Your task to perform on an android device: Go to location settings Image 0: 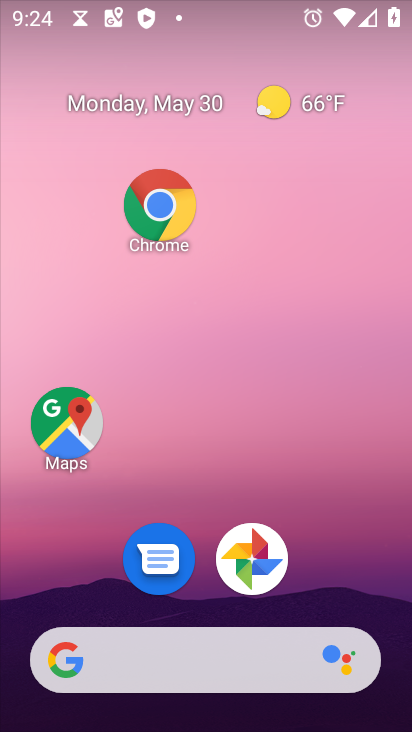
Step 0: drag from (246, 529) to (172, 5)
Your task to perform on an android device: Go to location settings Image 1: 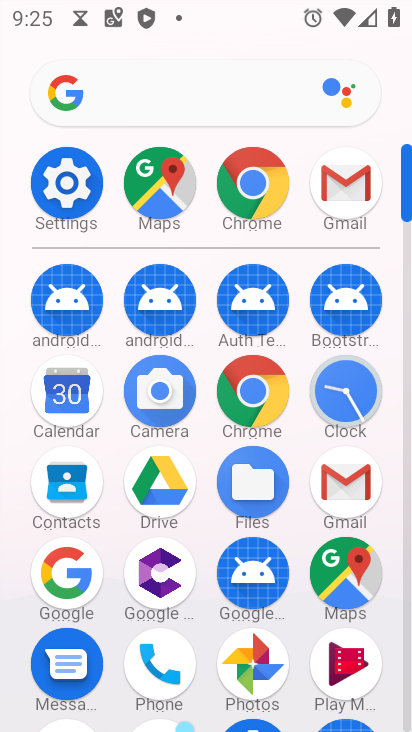
Step 1: drag from (161, 82) to (170, 35)
Your task to perform on an android device: Go to location settings Image 2: 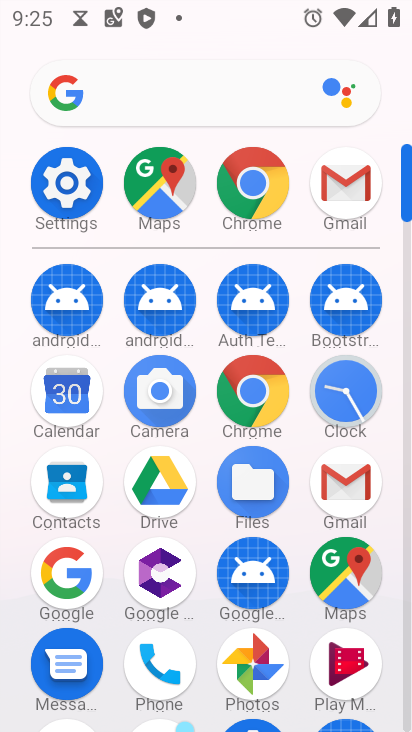
Step 2: drag from (164, 185) to (155, 92)
Your task to perform on an android device: Go to location settings Image 3: 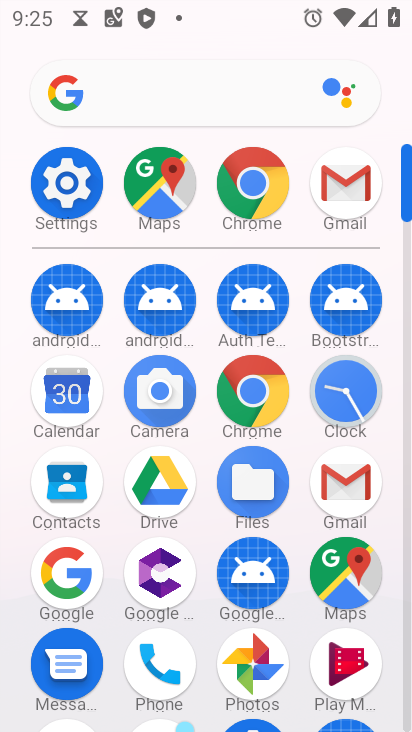
Step 3: drag from (231, 463) to (189, 9)
Your task to perform on an android device: Go to location settings Image 4: 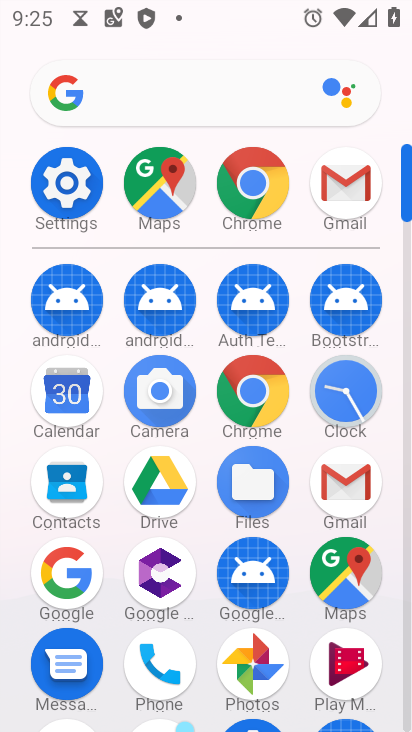
Step 4: click (199, 48)
Your task to perform on an android device: Go to location settings Image 5: 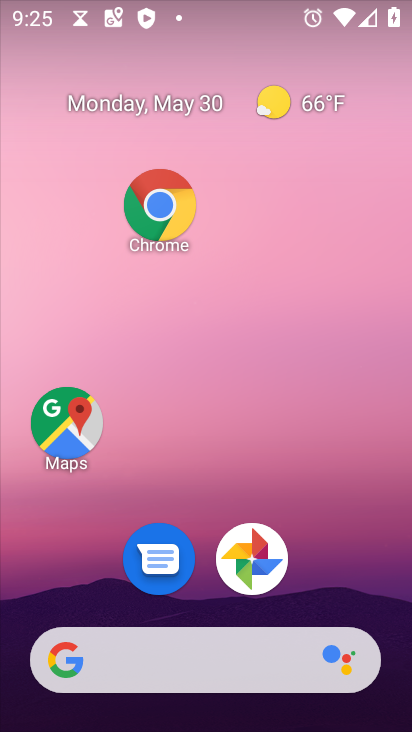
Step 5: click (246, 194)
Your task to perform on an android device: Go to location settings Image 6: 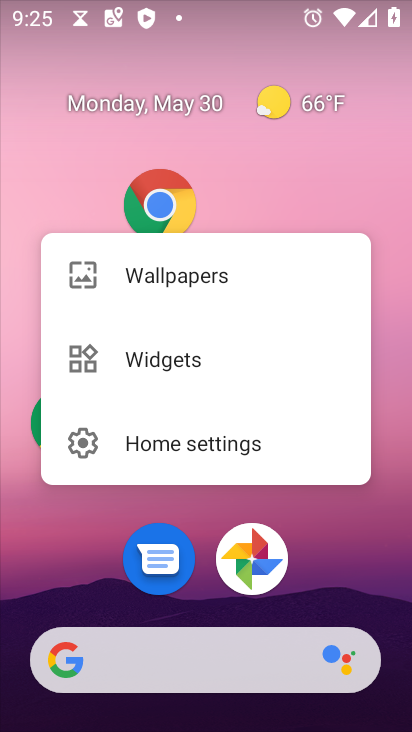
Step 6: drag from (311, 439) to (262, 19)
Your task to perform on an android device: Go to location settings Image 7: 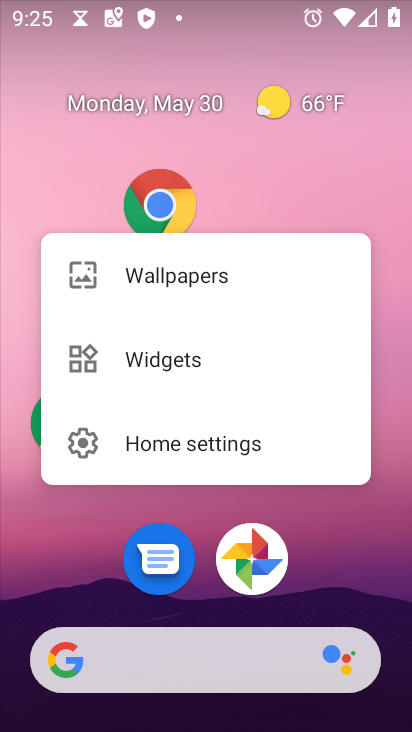
Step 7: click (322, 165)
Your task to perform on an android device: Go to location settings Image 8: 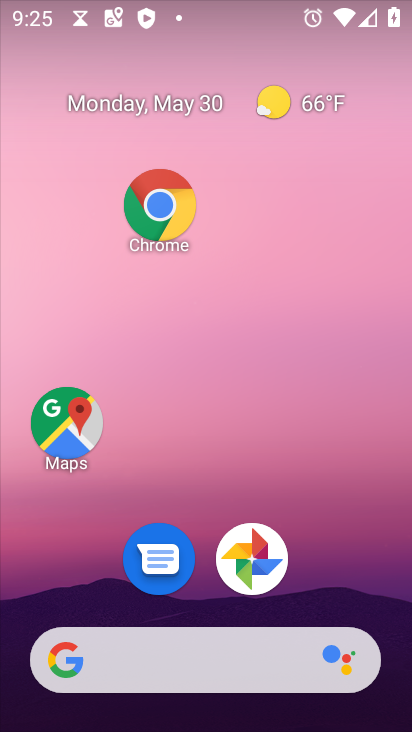
Step 8: drag from (252, 717) to (128, 1)
Your task to perform on an android device: Go to location settings Image 9: 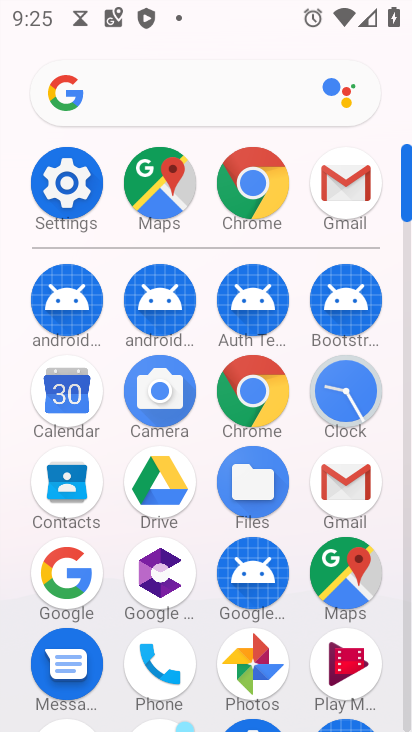
Step 9: drag from (138, 238) to (122, 126)
Your task to perform on an android device: Go to location settings Image 10: 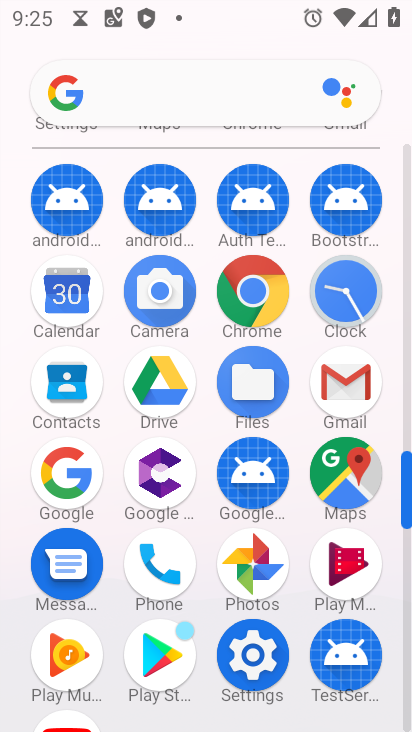
Step 10: drag from (207, 687) to (138, 77)
Your task to perform on an android device: Go to location settings Image 11: 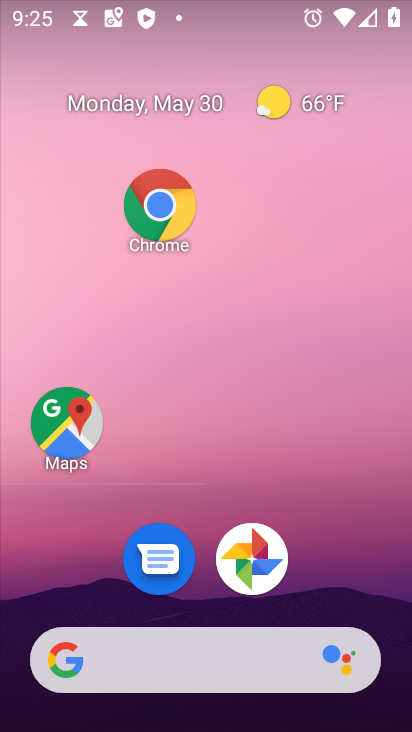
Step 11: drag from (180, 473) to (139, 197)
Your task to perform on an android device: Go to location settings Image 12: 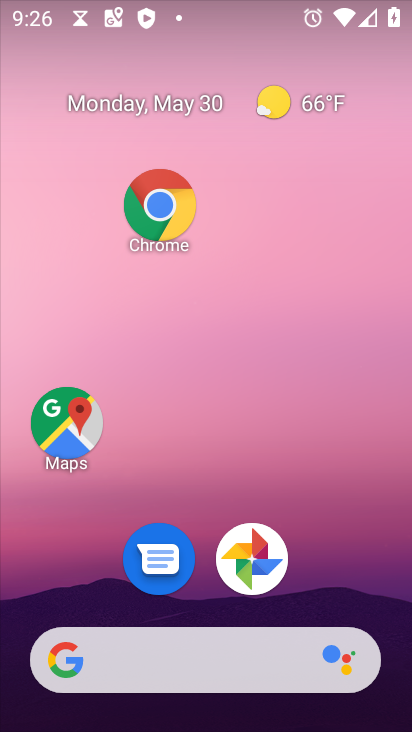
Step 12: click (162, 68)
Your task to perform on an android device: Go to location settings Image 13: 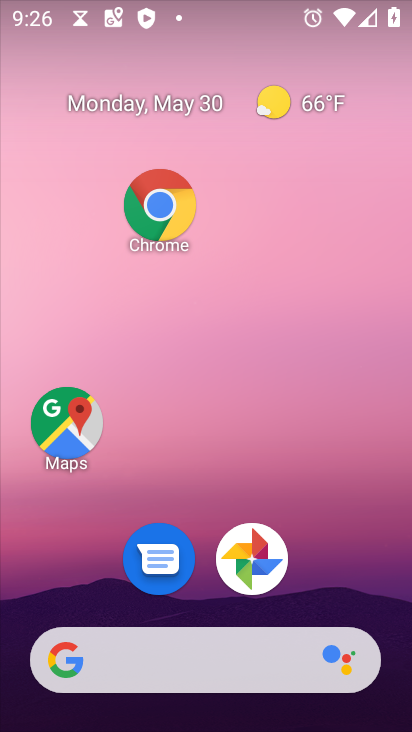
Step 13: drag from (288, 349) to (286, 155)
Your task to perform on an android device: Go to location settings Image 14: 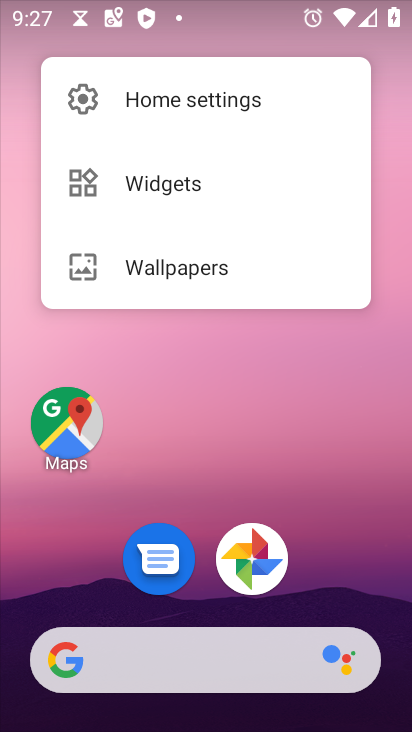
Step 14: drag from (315, 675) to (299, 133)
Your task to perform on an android device: Go to location settings Image 15: 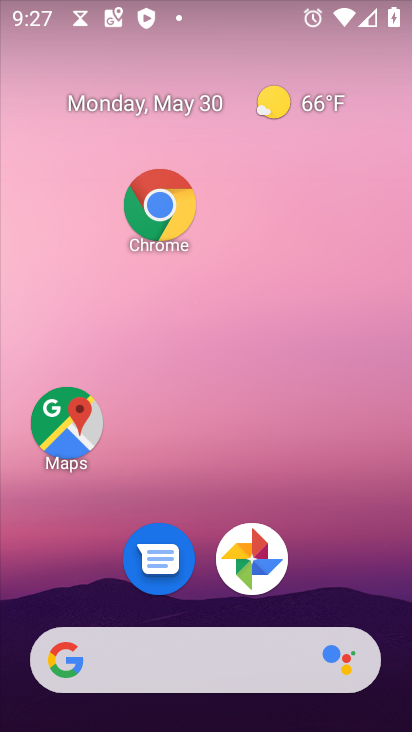
Step 15: drag from (285, 689) to (221, 117)
Your task to perform on an android device: Go to location settings Image 16: 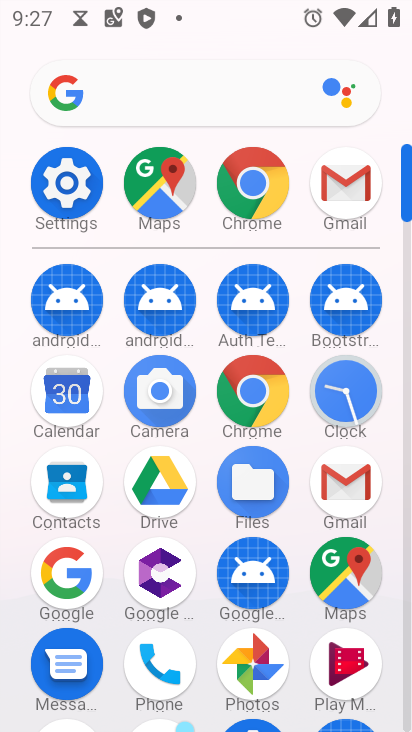
Step 16: click (265, 131)
Your task to perform on an android device: Go to location settings Image 17: 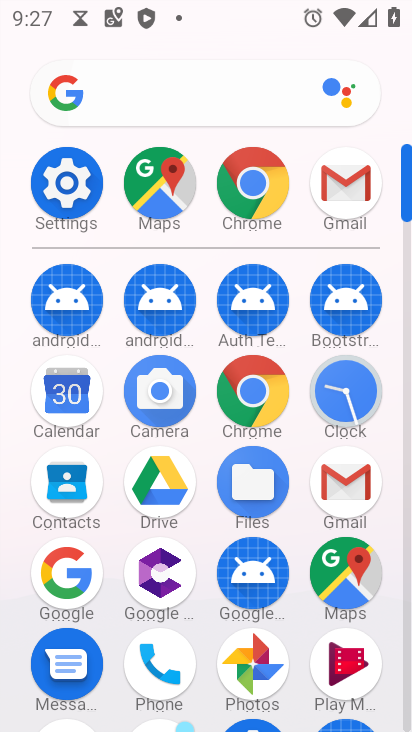
Step 17: drag from (246, 484) to (216, 297)
Your task to perform on an android device: Go to location settings Image 18: 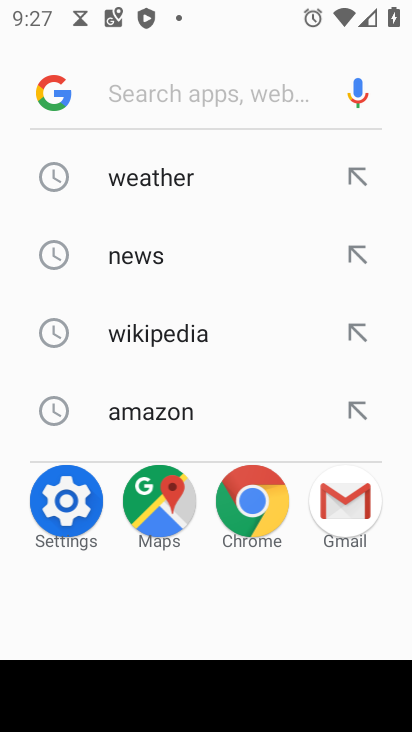
Step 18: press back button
Your task to perform on an android device: Go to location settings Image 19: 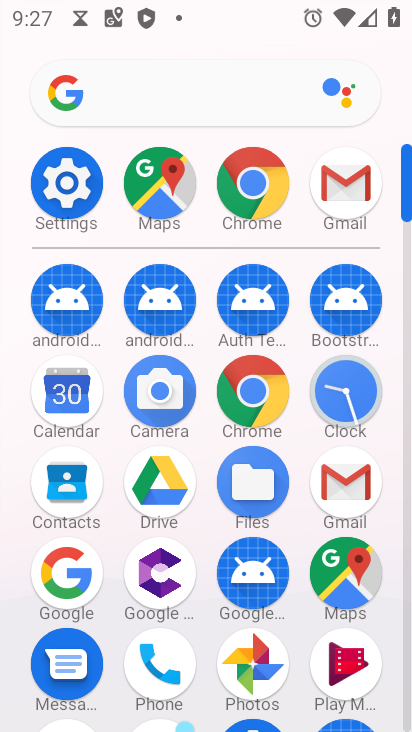
Step 19: click (61, 172)
Your task to perform on an android device: Go to location settings Image 20: 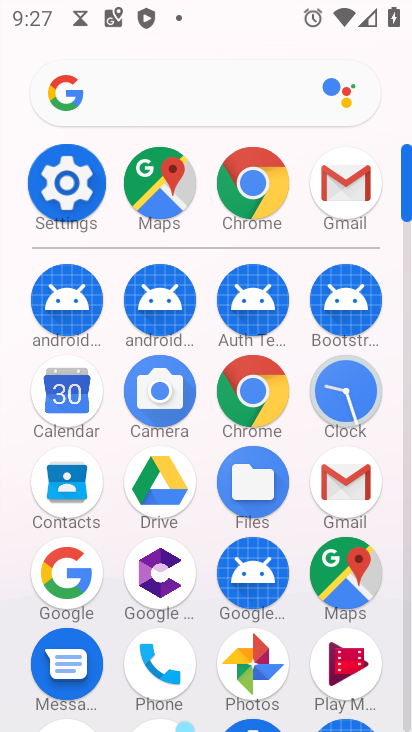
Step 20: click (60, 173)
Your task to perform on an android device: Go to location settings Image 21: 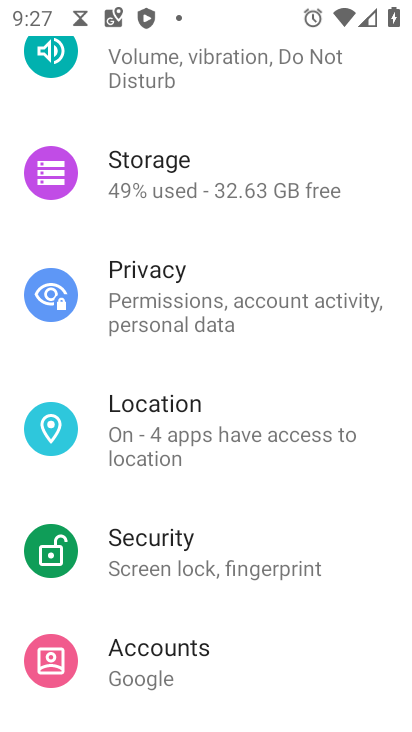
Step 21: click (158, 407)
Your task to perform on an android device: Go to location settings Image 22: 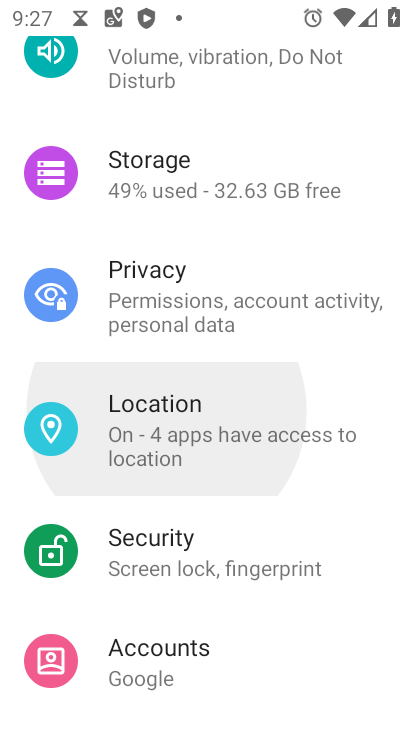
Step 22: click (154, 404)
Your task to perform on an android device: Go to location settings Image 23: 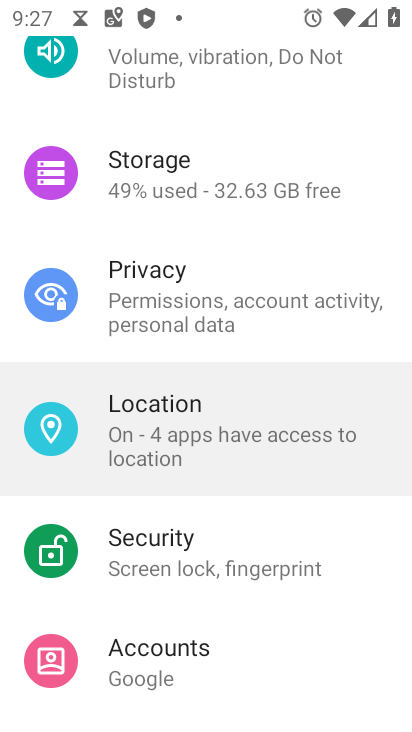
Step 23: click (150, 402)
Your task to perform on an android device: Go to location settings Image 24: 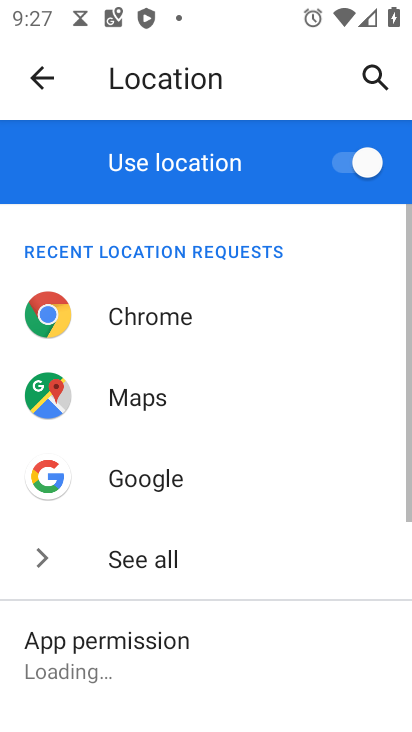
Step 24: click (154, 401)
Your task to perform on an android device: Go to location settings Image 25: 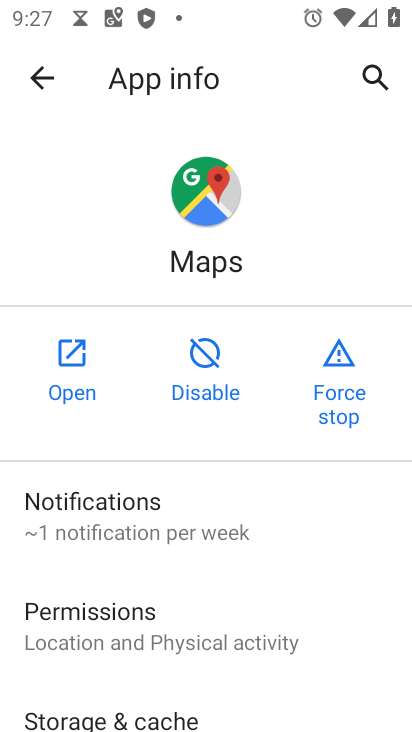
Step 25: drag from (192, 474) to (180, 327)
Your task to perform on an android device: Go to location settings Image 26: 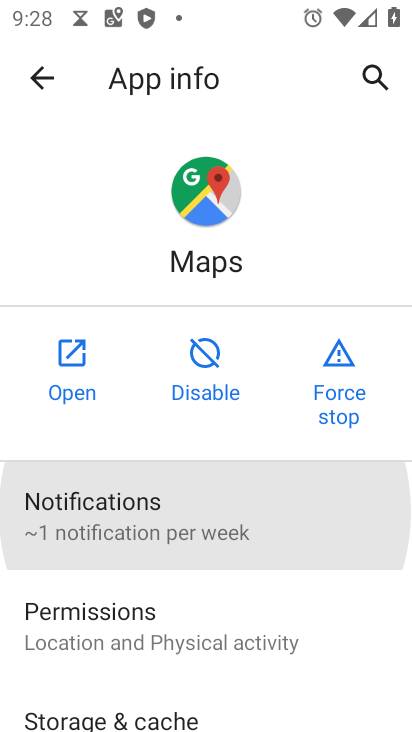
Step 26: drag from (193, 423) to (181, 241)
Your task to perform on an android device: Go to location settings Image 27: 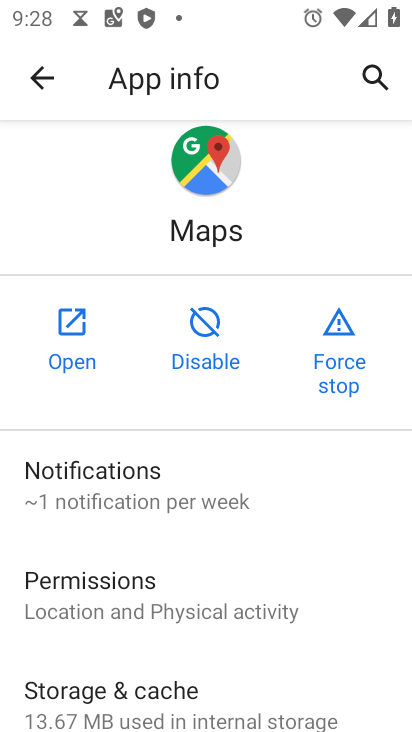
Step 27: drag from (163, 549) to (127, 151)
Your task to perform on an android device: Go to location settings Image 28: 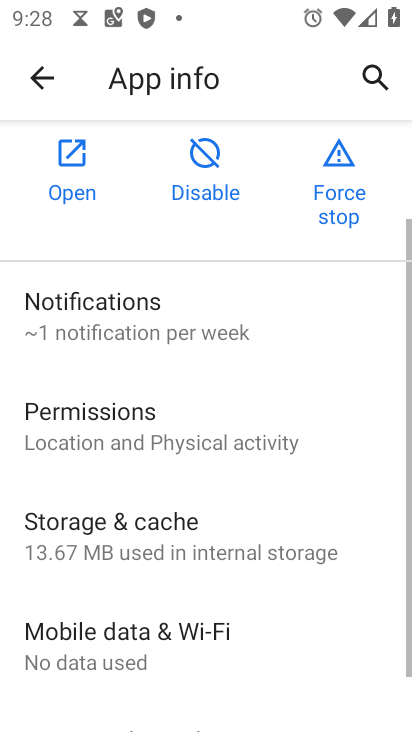
Step 28: drag from (143, 467) to (161, 171)
Your task to perform on an android device: Go to location settings Image 29: 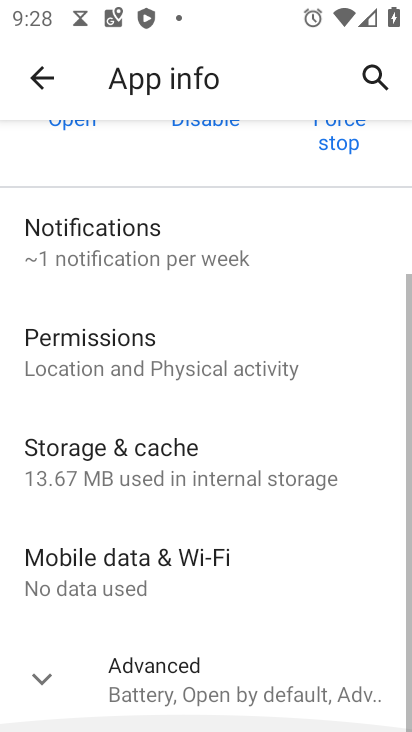
Step 29: click (194, 175)
Your task to perform on an android device: Go to location settings Image 30: 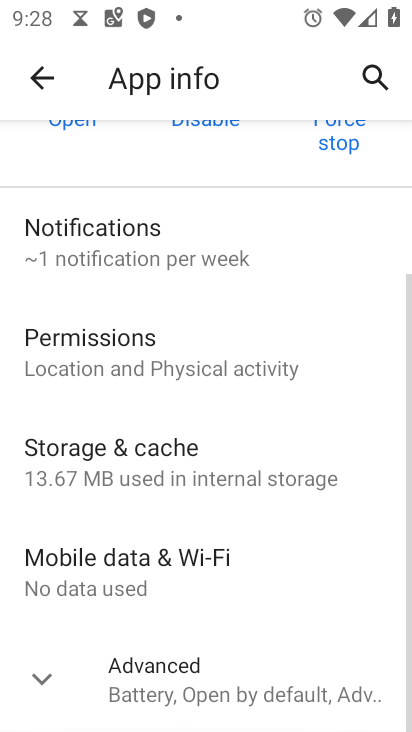
Step 30: drag from (141, 579) to (100, 250)
Your task to perform on an android device: Go to location settings Image 31: 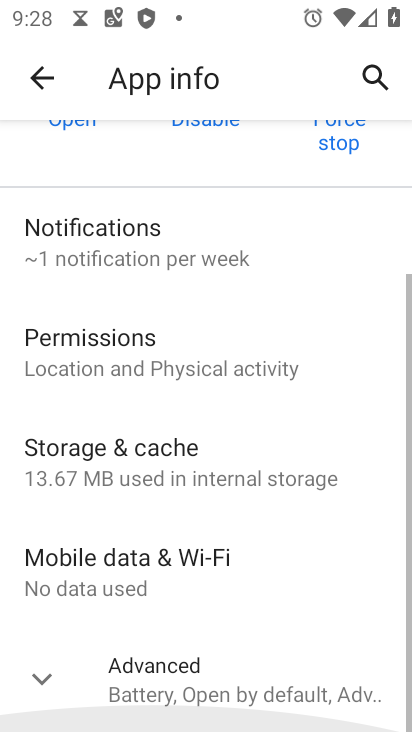
Step 31: click (38, 71)
Your task to perform on an android device: Go to location settings Image 32: 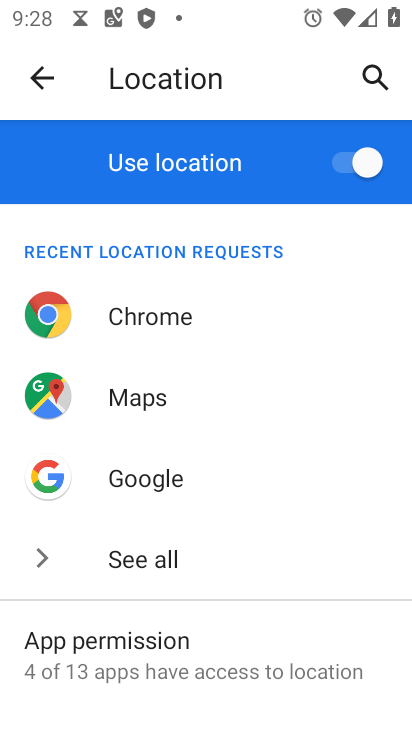
Step 32: drag from (164, 603) to (105, 322)
Your task to perform on an android device: Go to location settings Image 33: 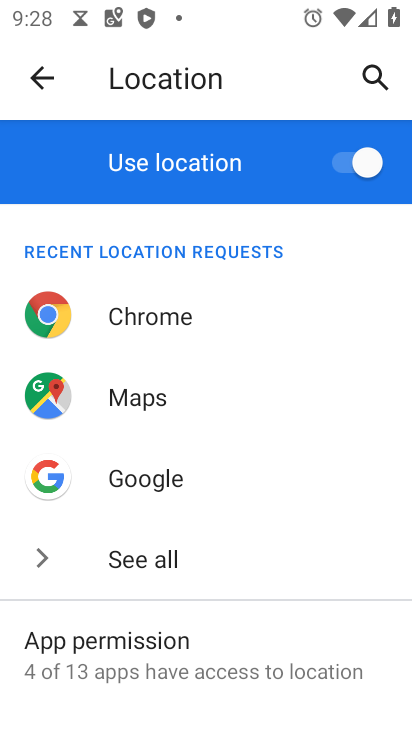
Step 33: click (147, 263)
Your task to perform on an android device: Go to location settings Image 34: 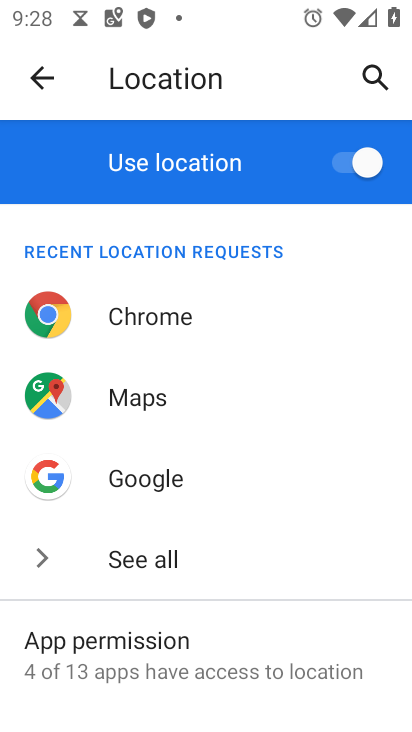
Step 34: task complete